Your task to perform on an android device: empty trash in the gmail app Image 0: 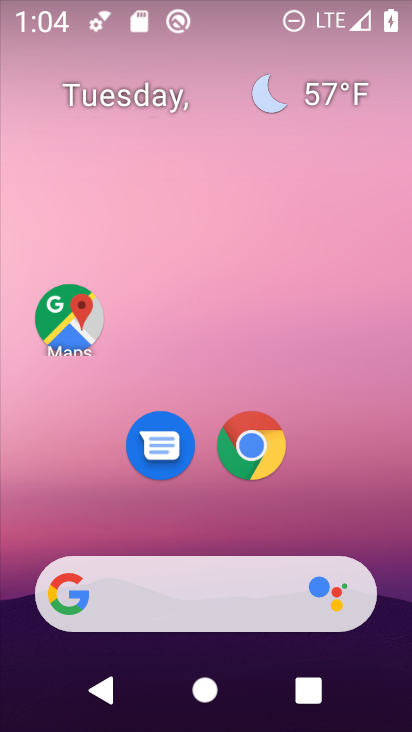
Step 0: drag from (387, 529) to (380, 145)
Your task to perform on an android device: empty trash in the gmail app Image 1: 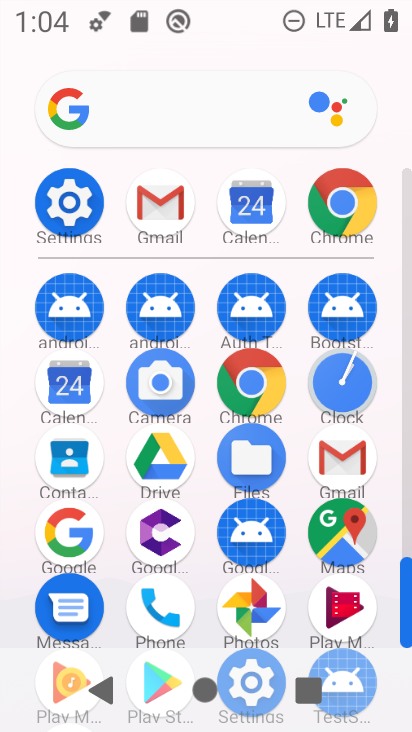
Step 1: click (343, 476)
Your task to perform on an android device: empty trash in the gmail app Image 2: 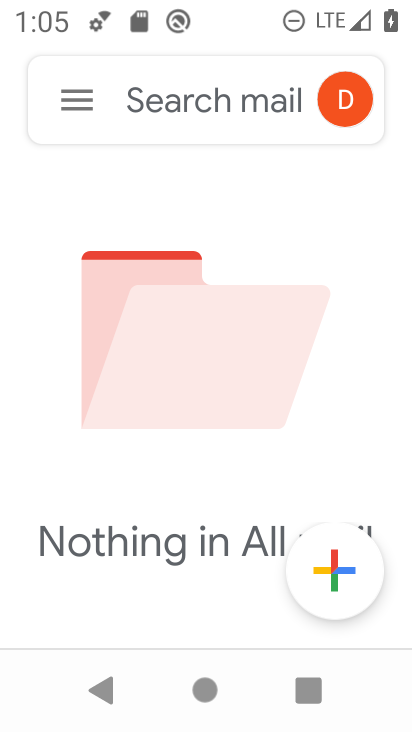
Step 2: click (89, 108)
Your task to perform on an android device: empty trash in the gmail app Image 3: 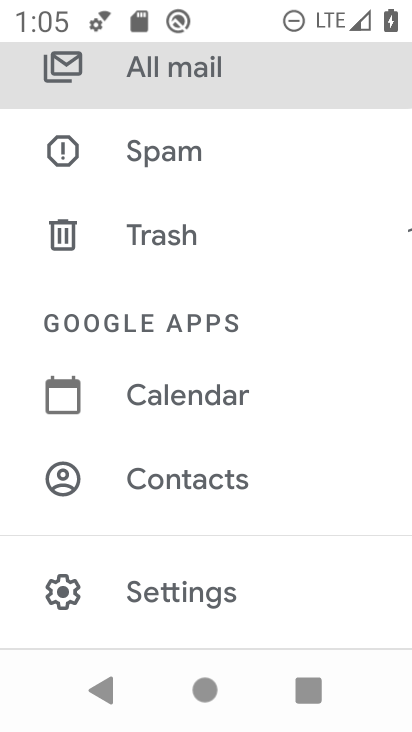
Step 3: drag from (336, 312) to (345, 419)
Your task to perform on an android device: empty trash in the gmail app Image 4: 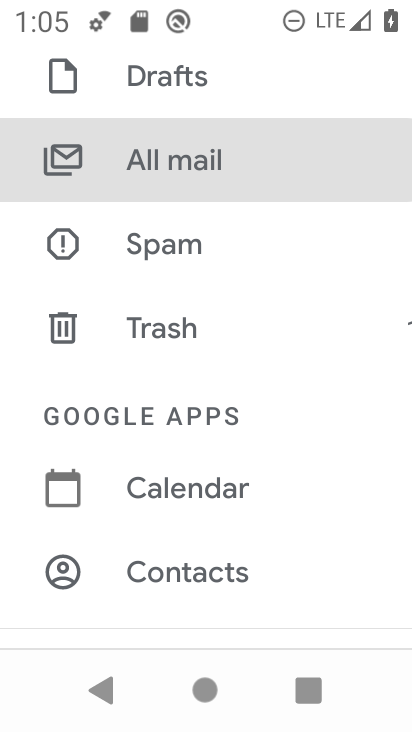
Step 4: drag from (329, 174) to (330, 334)
Your task to perform on an android device: empty trash in the gmail app Image 5: 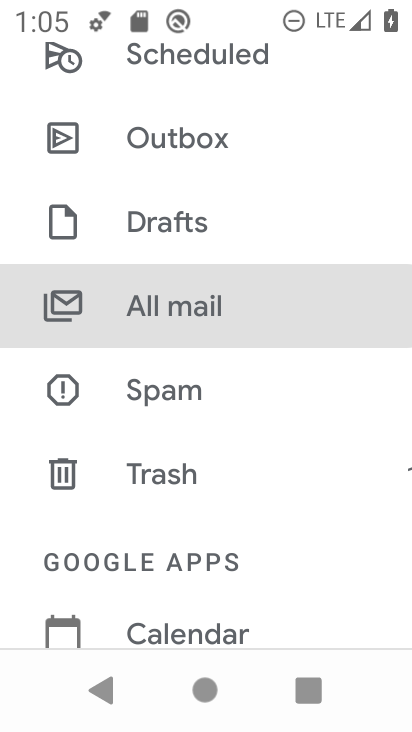
Step 5: drag from (334, 154) to (337, 296)
Your task to perform on an android device: empty trash in the gmail app Image 6: 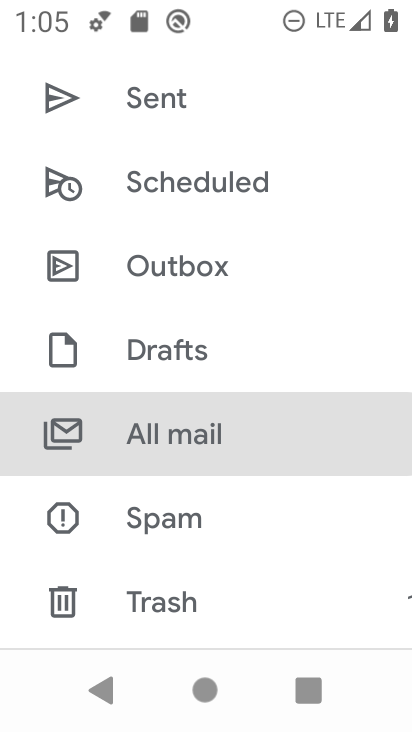
Step 6: drag from (335, 154) to (337, 321)
Your task to perform on an android device: empty trash in the gmail app Image 7: 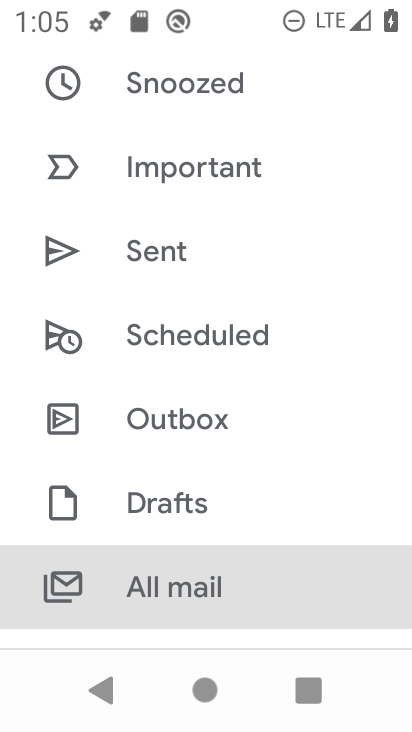
Step 7: drag from (350, 103) to (333, 304)
Your task to perform on an android device: empty trash in the gmail app Image 8: 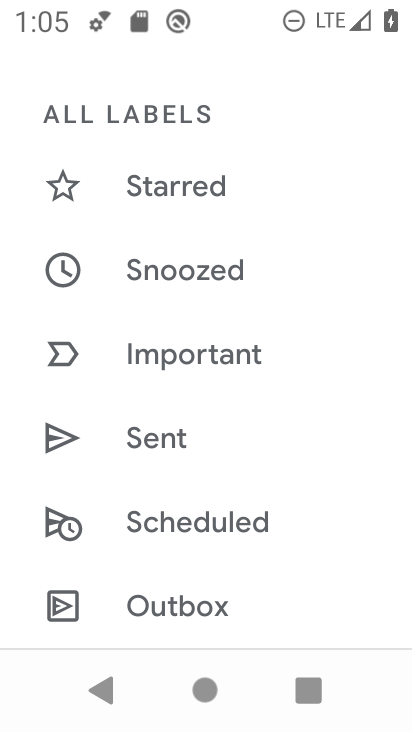
Step 8: drag from (327, 213) to (334, 440)
Your task to perform on an android device: empty trash in the gmail app Image 9: 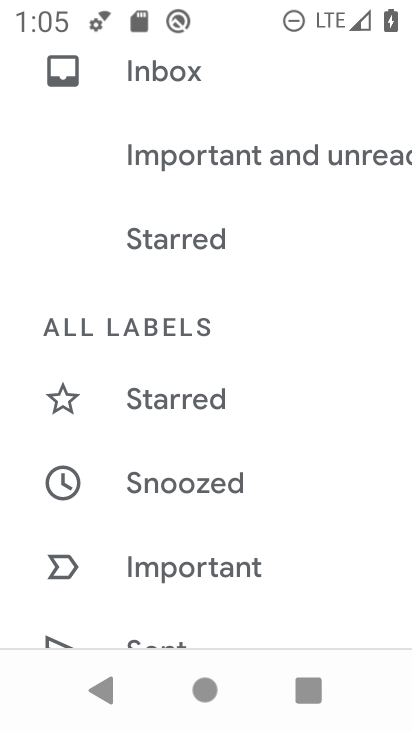
Step 9: drag from (333, 463) to (347, 338)
Your task to perform on an android device: empty trash in the gmail app Image 10: 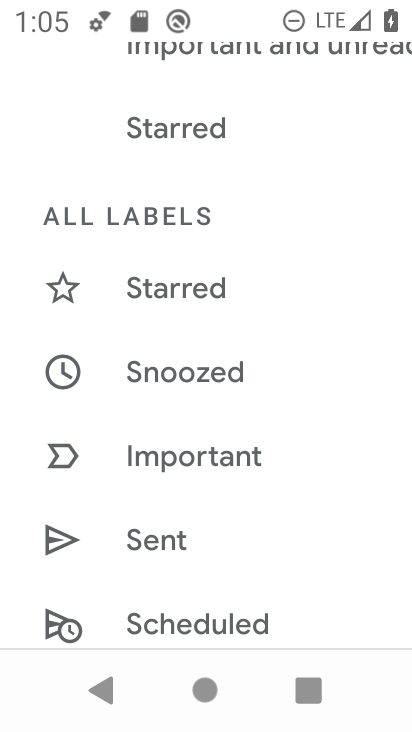
Step 10: drag from (369, 558) to (360, 377)
Your task to perform on an android device: empty trash in the gmail app Image 11: 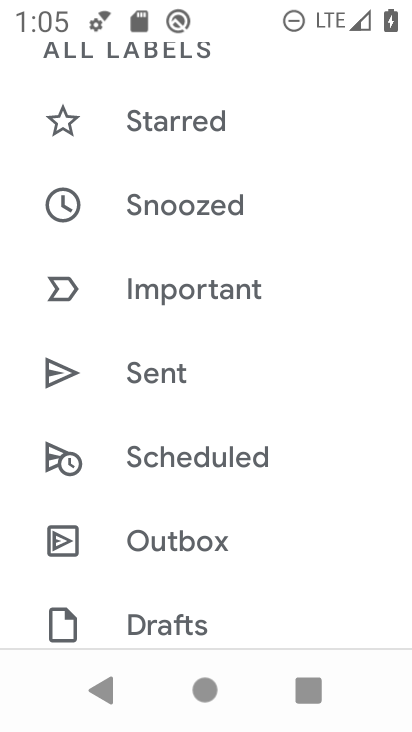
Step 11: drag from (356, 560) to (361, 399)
Your task to perform on an android device: empty trash in the gmail app Image 12: 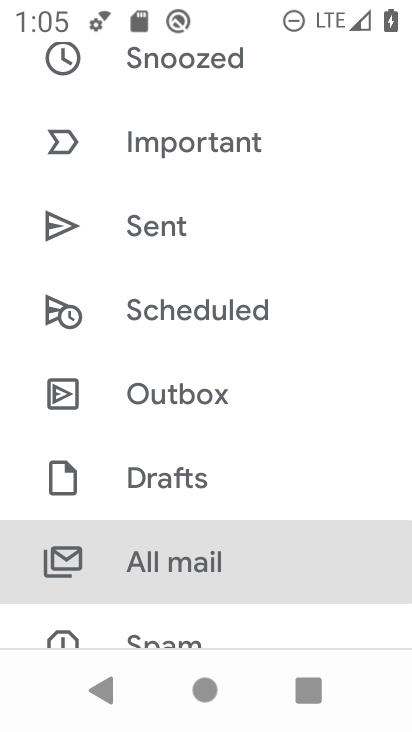
Step 12: drag from (365, 601) to (349, 414)
Your task to perform on an android device: empty trash in the gmail app Image 13: 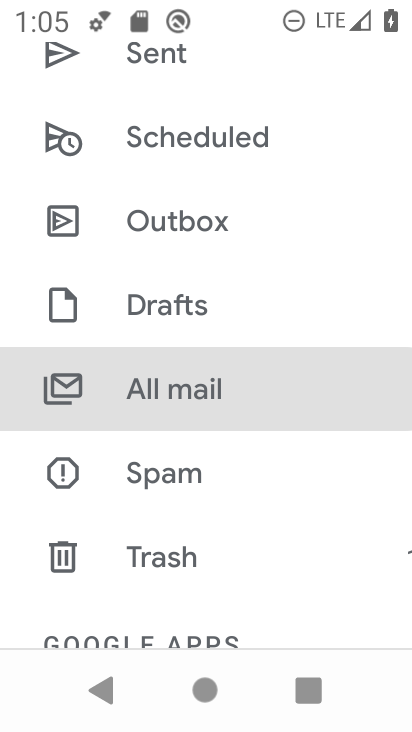
Step 13: click (236, 565)
Your task to perform on an android device: empty trash in the gmail app Image 14: 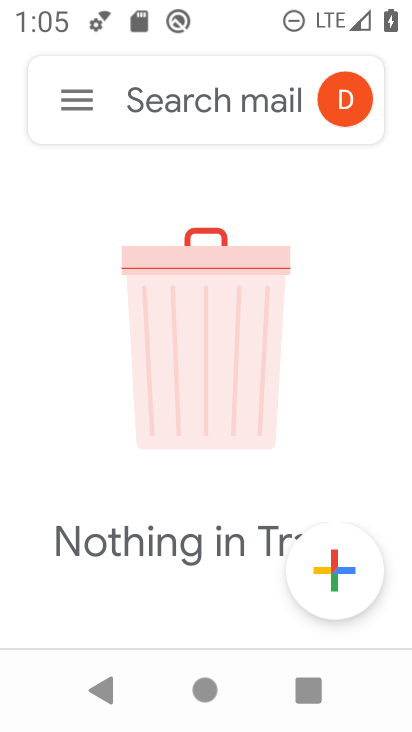
Step 14: task complete